Your task to perform on an android device: change the clock style Image 0: 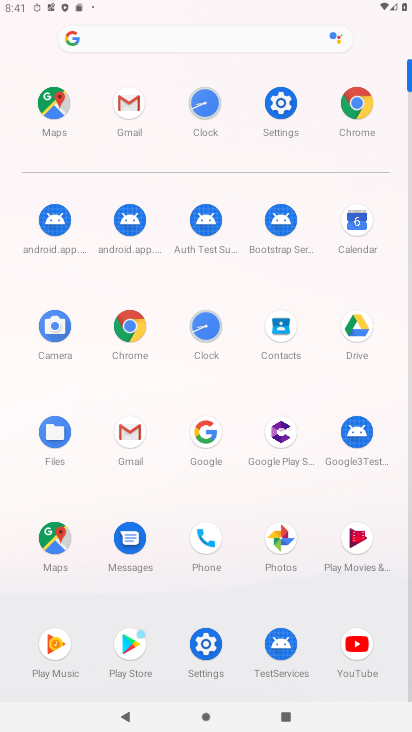
Step 0: click (205, 329)
Your task to perform on an android device: change the clock style Image 1: 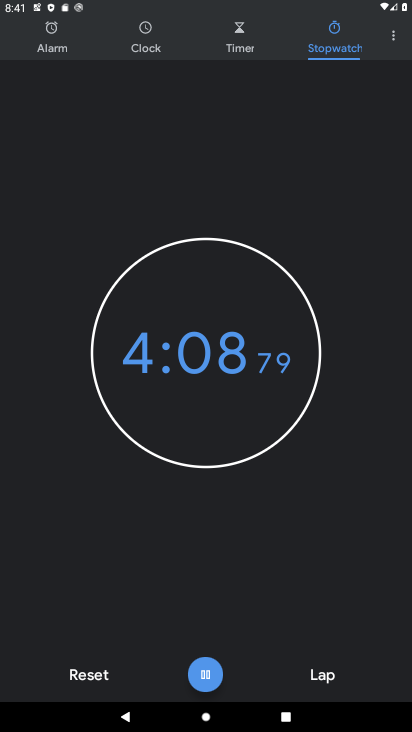
Step 1: click (394, 41)
Your task to perform on an android device: change the clock style Image 2: 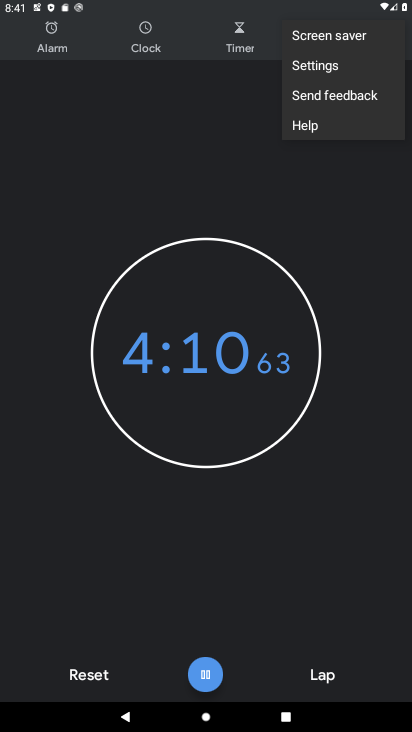
Step 2: click (324, 65)
Your task to perform on an android device: change the clock style Image 3: 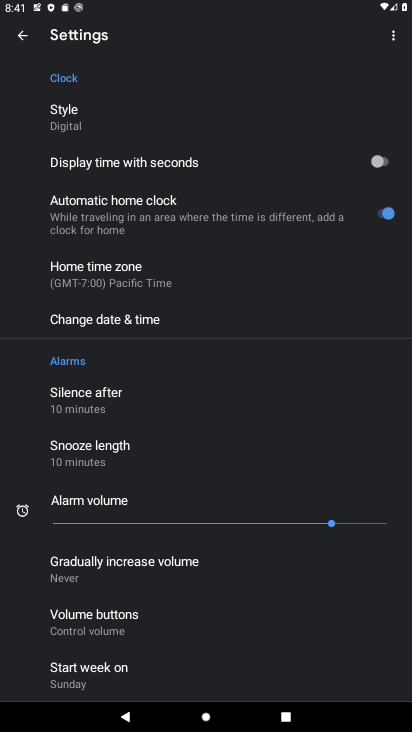
Step 3: click (70, 121)
Your task to perform on an android device: change the clock style Image 4: 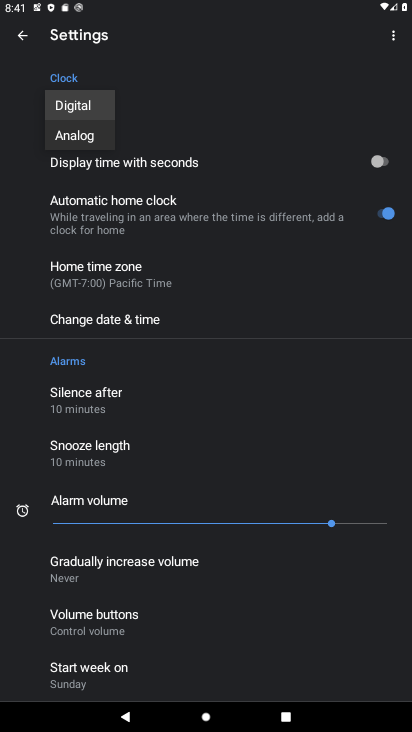
Step 4: click (76, 135)
Your task to perform on an android device: change the clock style Image 5: 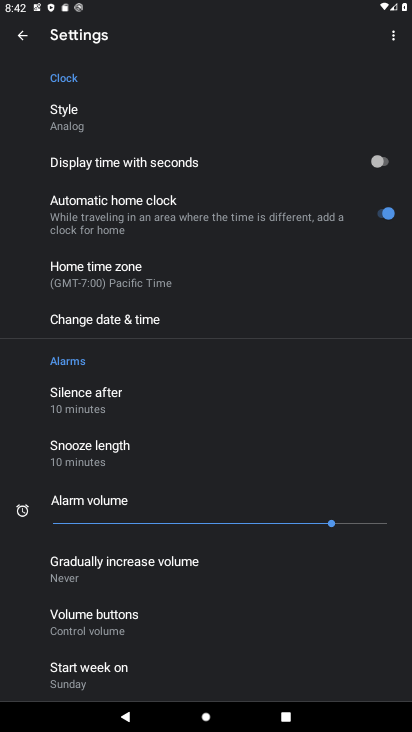
Step 5: task complete